Your task to perform on an android device: see sites visited before in the chrome app Image 0: 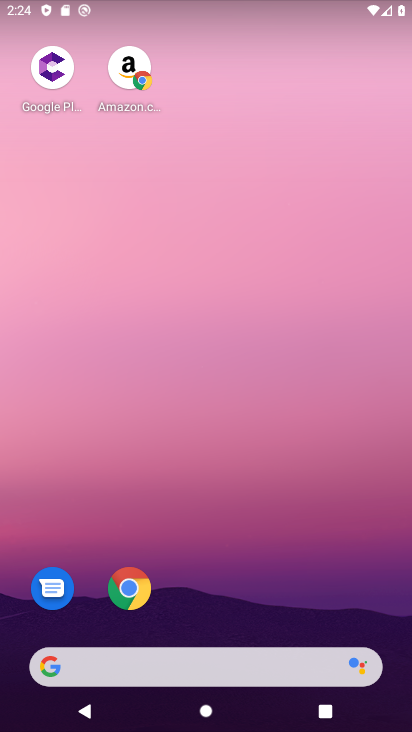
Step 0: drag from (320, 551) to (278, 94)
Your task to perform on an android device: see sites visited before in the chrome app Image 1: 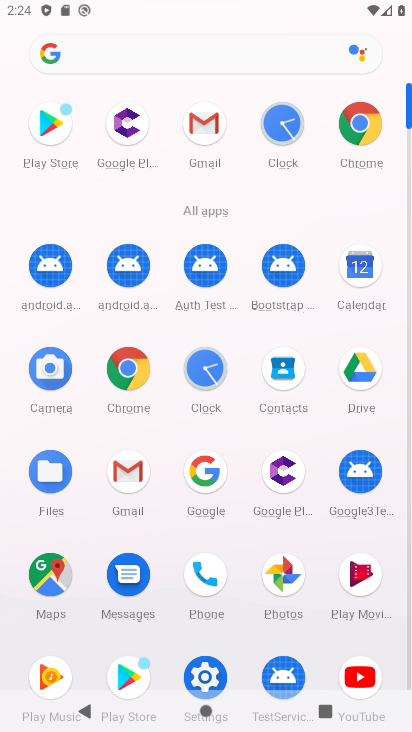
Step 1: click (357, 127)
Your task to perform on an android device: see sites visited before in the chrome app Image 2: 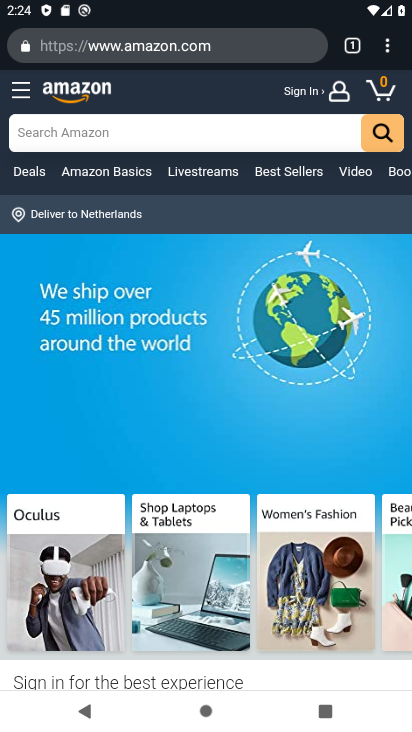
Step 2: task complete